Your task to perform on an android device: allow notifications from all sites in the chrome app Image 0: 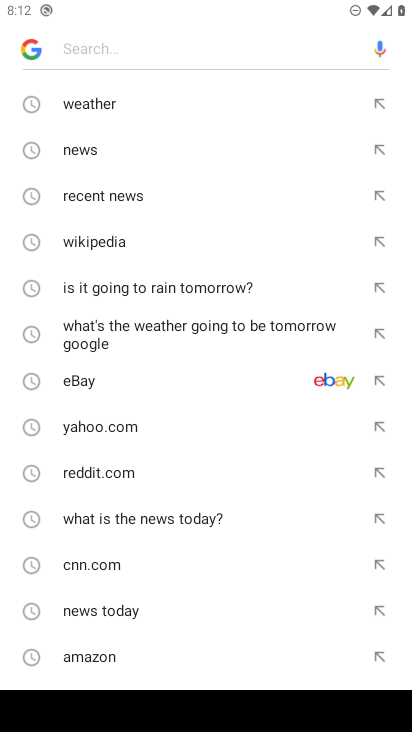
Step 0: press home button
Your task to perform on an android device: allow notifications from all sites in the chrome app Image 1: 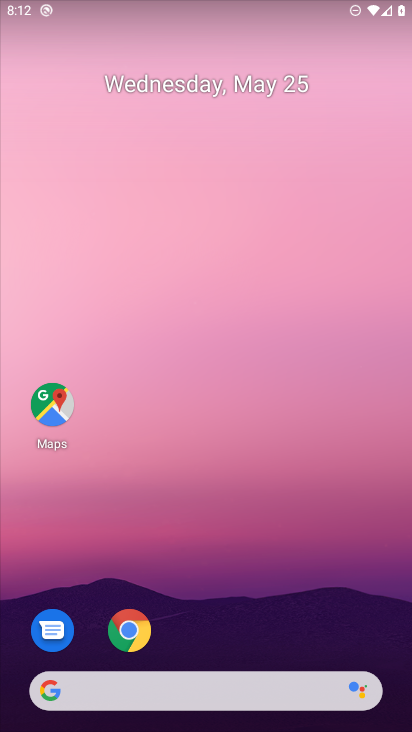
Step 1: click (144, 628)
Your task to perform on an android device: allow notifications from all sites in the chrome app Image 2: 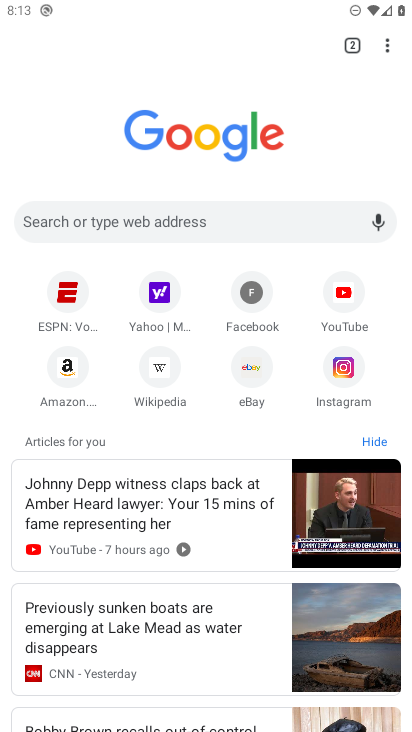
Step 2: click (388, 40)
Your task to perform on an android device: allow notifications from all sites in the chrome app Image 3: 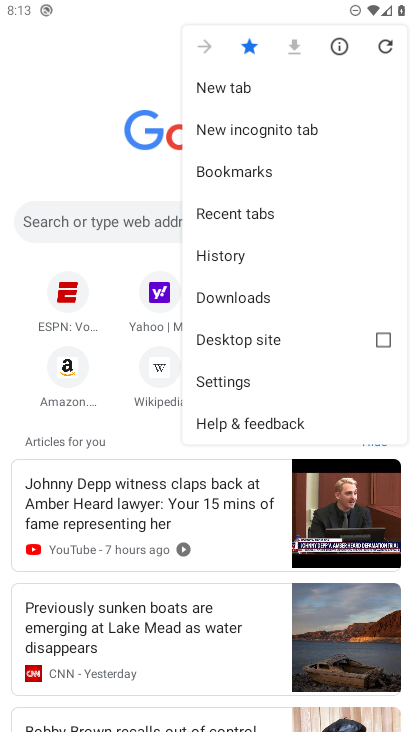
Step 3: click (211, 374)
Your task to perform on an android device: allow notifications from all sites in the chrome app Image 4: 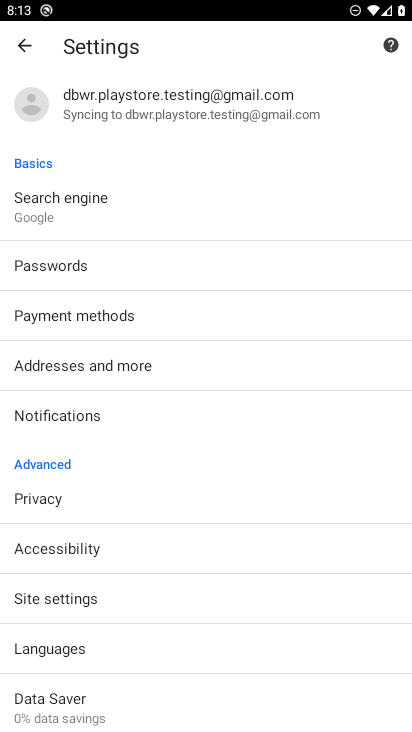
Step 4: click (59, 600)
Your task to perform on an android device: allow notifications from all sites in the chrome app Image 5: 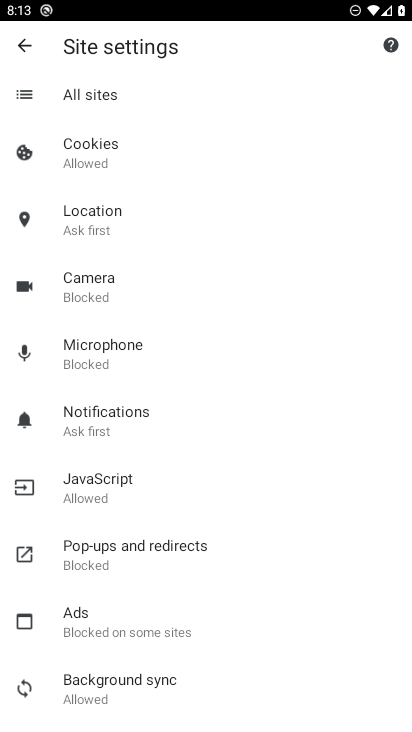
Step 5: click (106, 203)
Your task to perform on an android device: allow notifications from all sites in the chrome app Image 6: 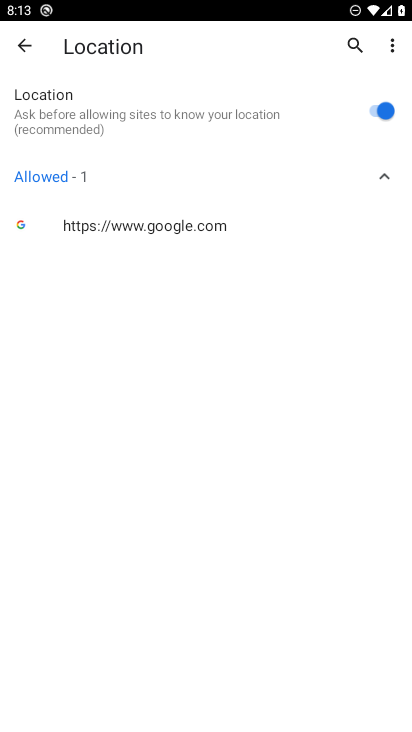
Step 6: click (376, 110)
Your task to perform on an android device: allow notifications from all sites in the chrome app Image 7: 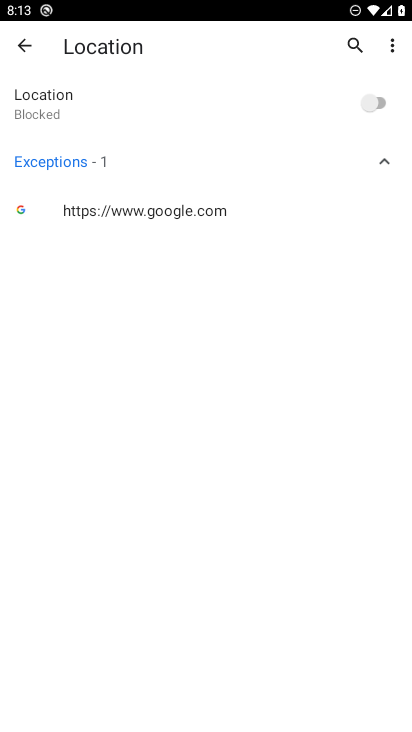
Step 7: click (381, 102)
Your task to perform on an android device: allow notifications from all sites in the chrome app Image 8: 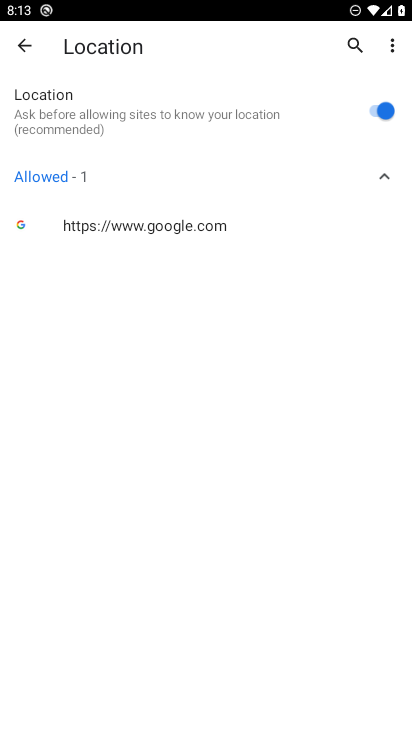
Step 8: click (28, 44)
Your task to perform on an android device: allow notifications from all sites in the chrome app Image 9: 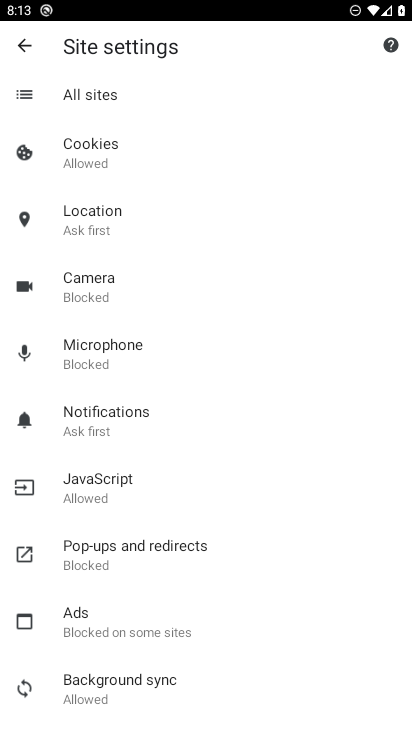
Step 9: click (119, 424)
Your task to perform on an android device: allow notifications from all sites in the chrome app Image 10: 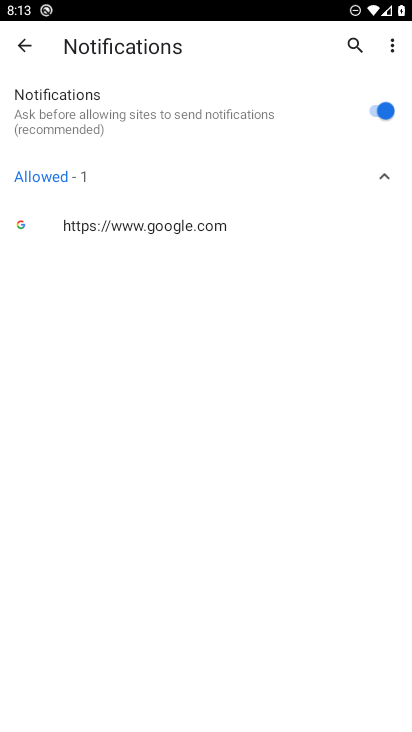
Step 10: task complete